Your task to perform on an android device: Open settings Image 0: 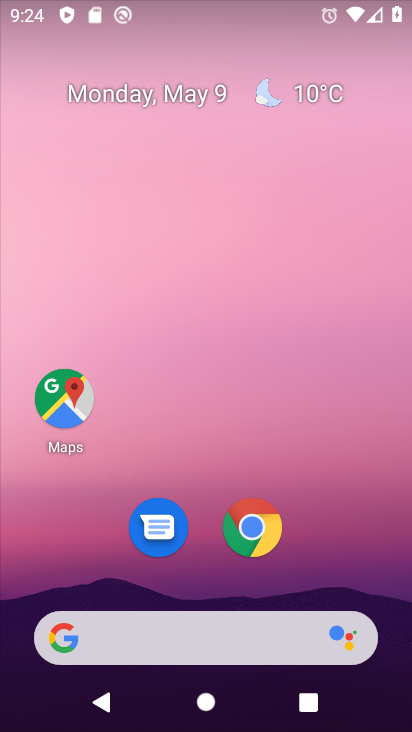
Step 0: drag from (392, 615) to (325, 36)
Your task to perform on an android device: Open settings Image 1: 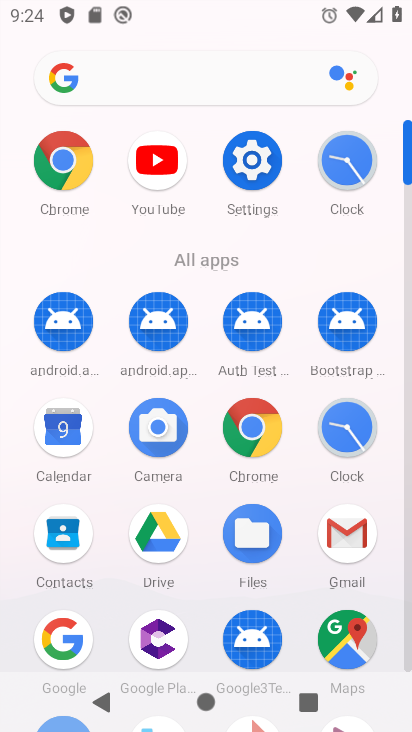
Step 1: click (405, 661)
Your task to perform on an android device: Open settings Image 2: 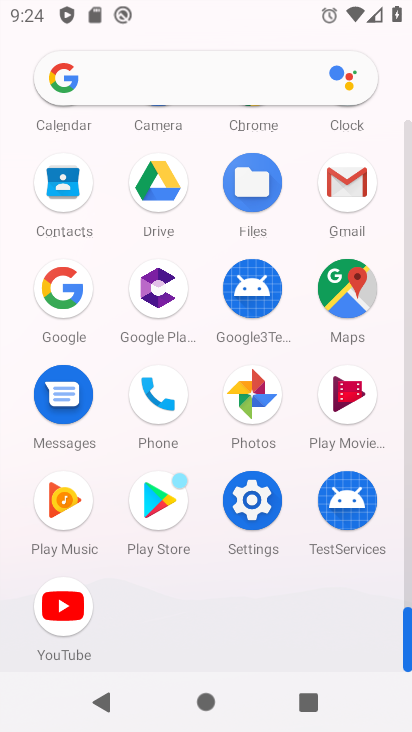
Step 2: click (251, 498)
Your task to perform on an android device: Open settings Image 3: 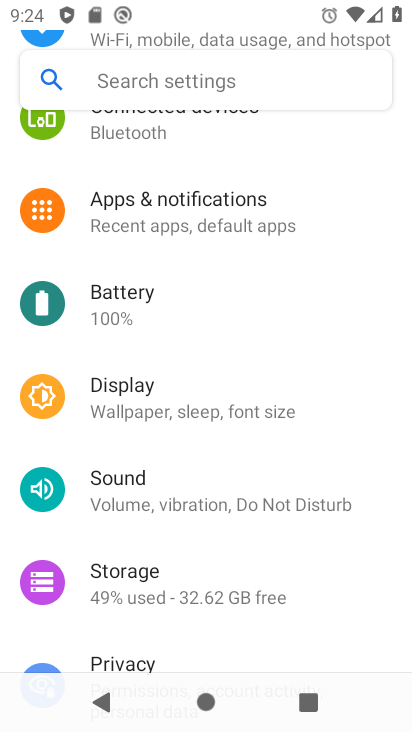
Step 3: task complete